Your task to perform on an android device: find which apps use the phone's location Image 0: 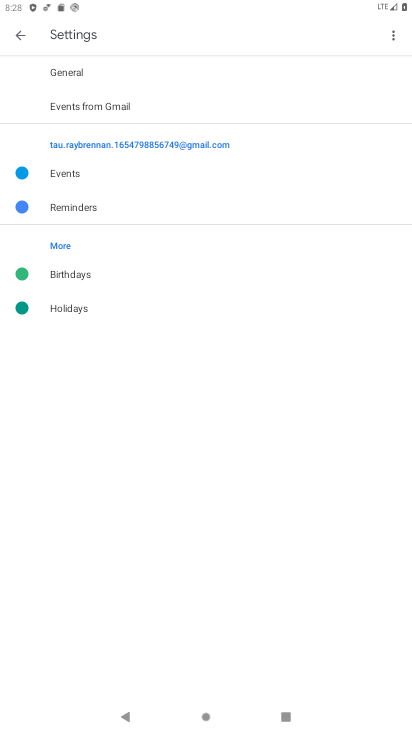
Step 0: press home button
Your task to perform on an android device: find which apps use the phone's location Image 1: 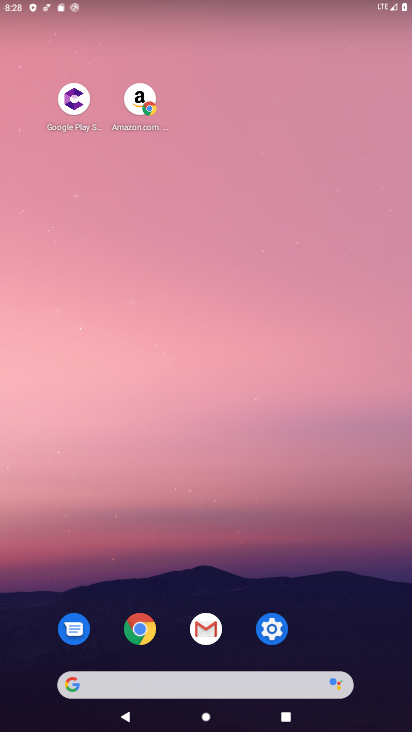
Step 1: click (268, 633)
Your task to perform on an android device: find which apps use the phone's location Image 2: 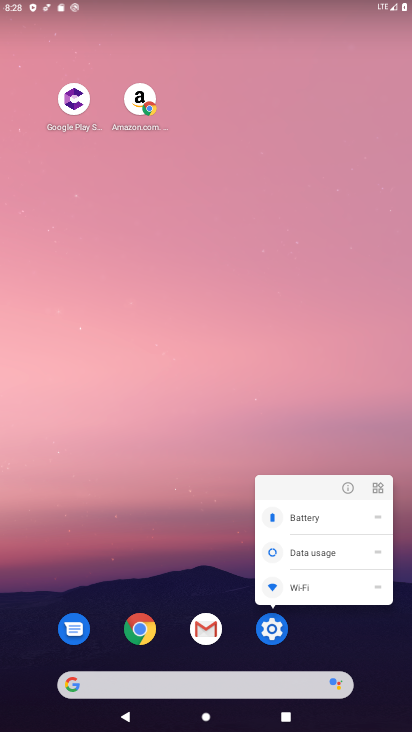
Step 2: click (273, 629)
Your task to perform on an android device: find which apps use the phone's location Image 3: 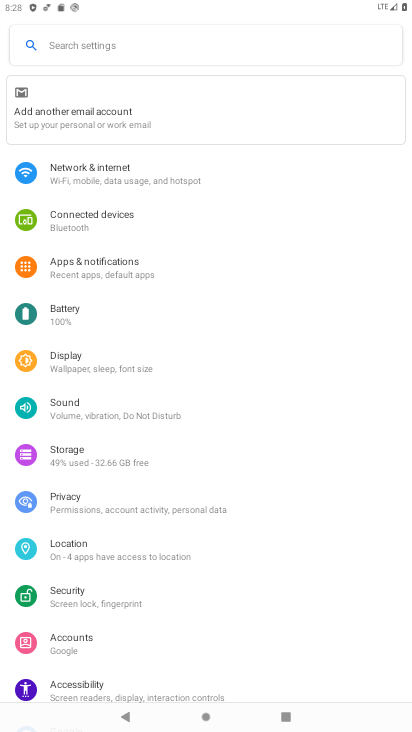
Step 3: click (141, 54)
Your task to perform on an android device: find which apps use the phone's location Image 4: 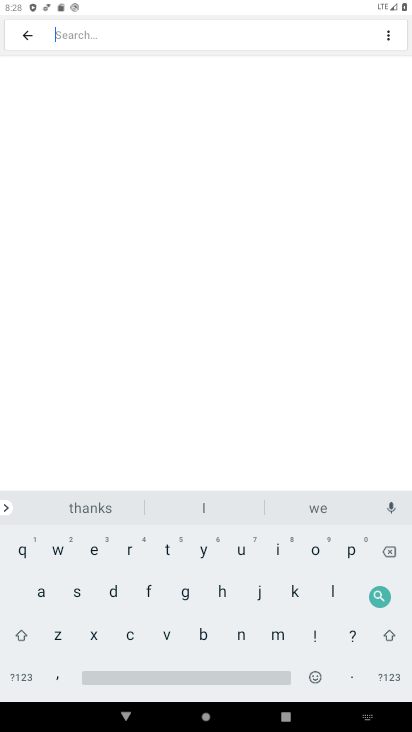
Step 4: click (334, 591)
Your task to perform on an android device: find which apps use the phone's location Image 5: 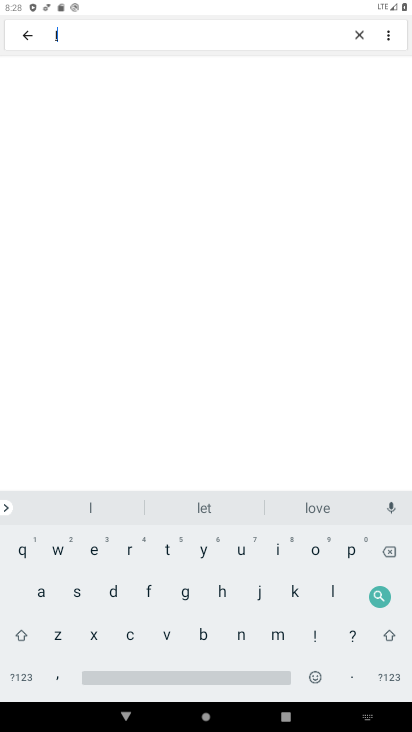
Step 5: click (314, 551)
Your task to perform on an android device: find which apps use the phone's location Image 6: 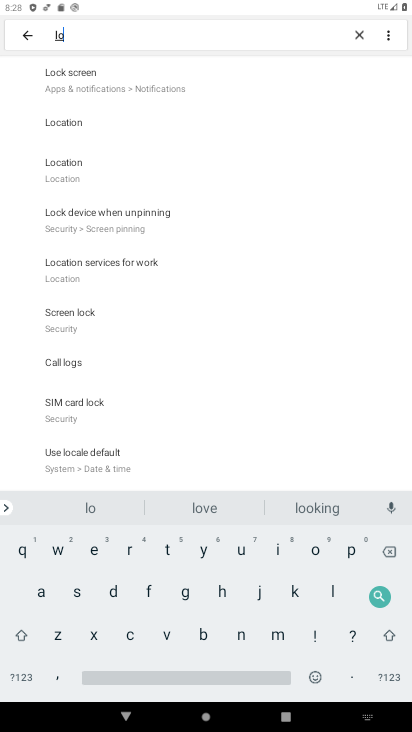
Step 6: click (84, 173)
Your task to perform on an android device: find which apps use the phone's location Image 7: 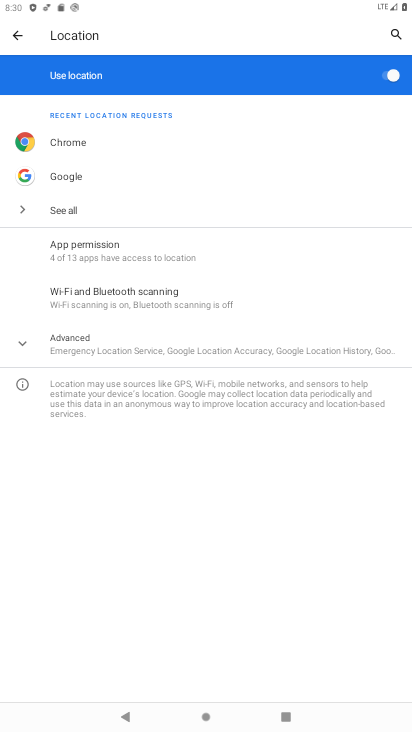
Step 7: task complete